Your task to perform on an android device: see sites visited before in the chrome app Image 0: 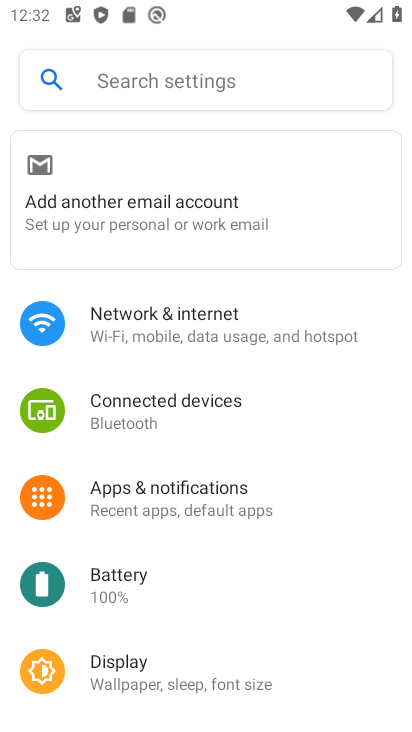
Step 0: press home button
Your task to perform on an android device: see sites visited before in the chrome app Image 1: 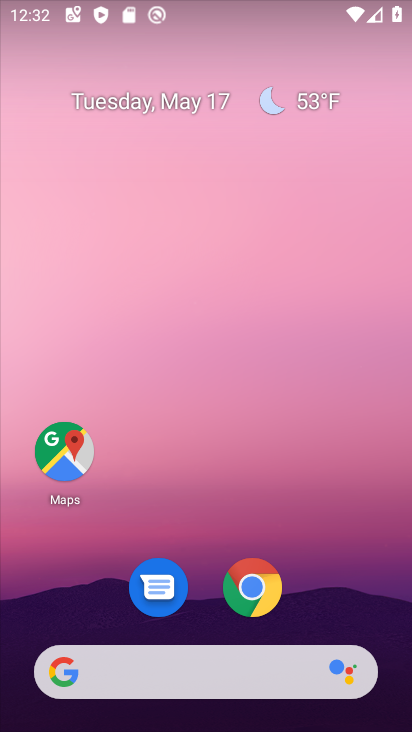
Step 1: click (238, 604)
Your task to perform on an android device: see sites visited before in the chrome app Image 2: 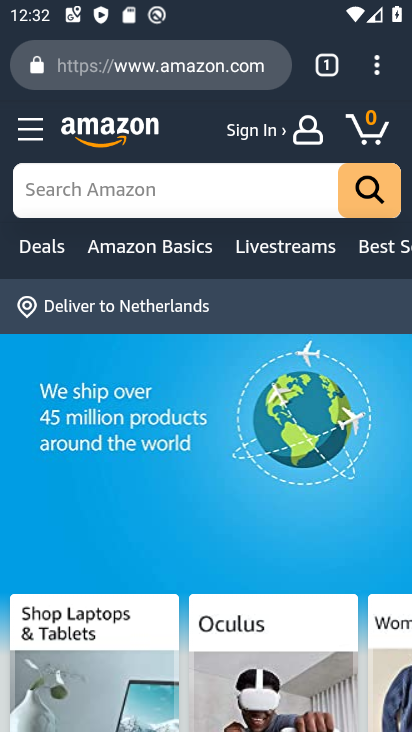
Step 2: click (372, 60)
Your task to perform on an android device: see sites visited before in the chrome app Image 3: 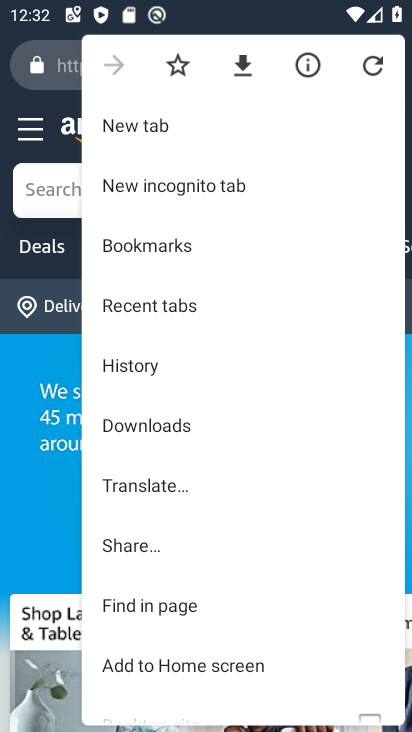
Step 3: click (157, 388)
Your task to perform on an android device: see sites visited before in the chrome app Image 4: 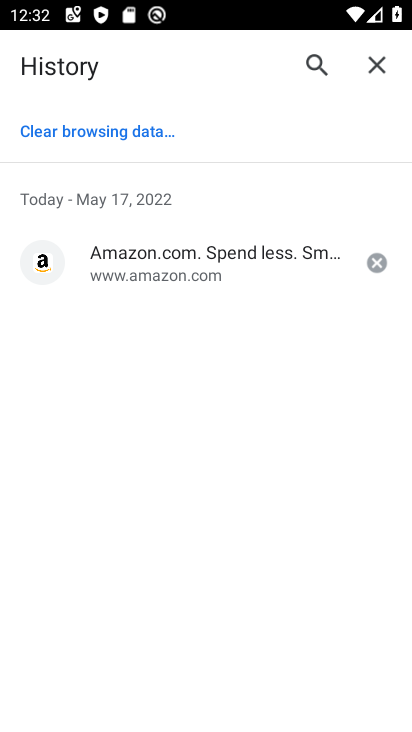
Step 4: task complete